Your task to perform on an android device: Open settings on Google Maps Image 0: 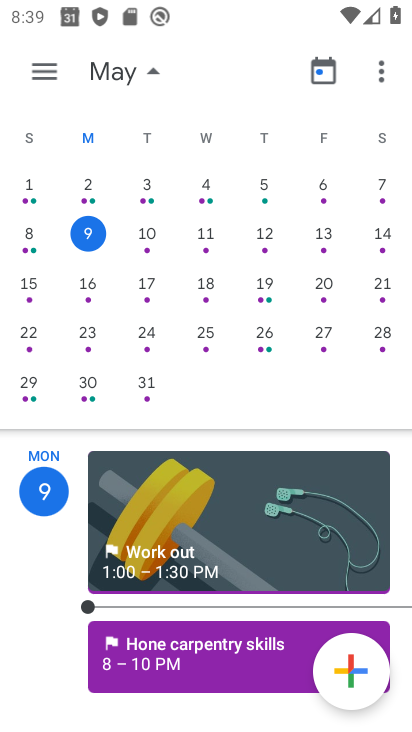
Step 0: press home button
Your task to perform on an android device: Open settings on Google Maps Image 1: 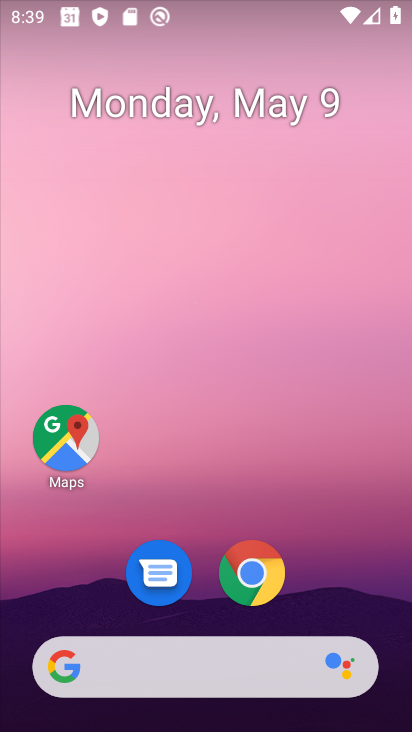
Step 1: drag from (283, 621) to (269, 75)
Your task to perform on an android device: Open settings on Google Maps Image 2: 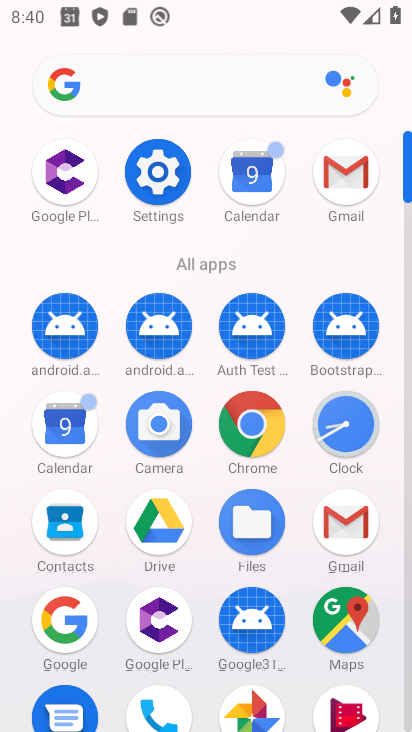
Step 2: click (349, 609)
Your task to perform on an android device: Open settings on Google Maps Image 3: 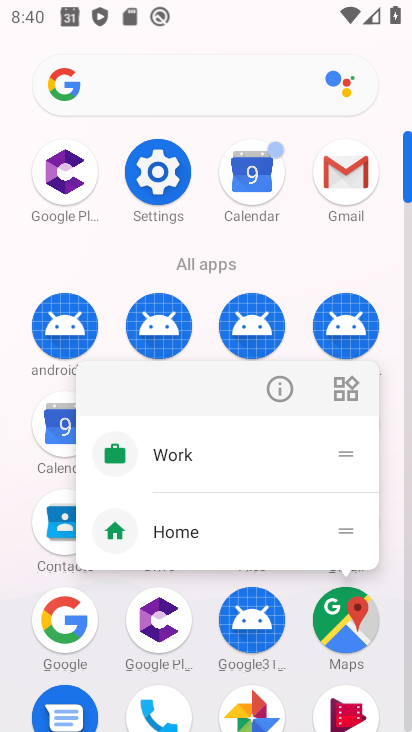
Step 3: click (349, 609)
Your task to perform on an android device: Open settings on Google Maps Image 4: 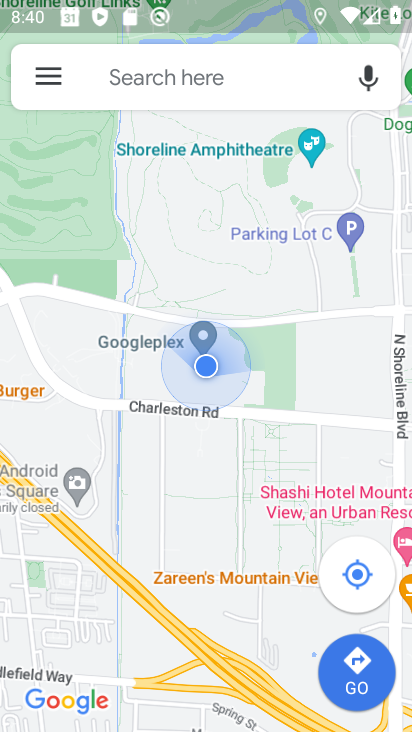
Step 4: click (62, 81)
Your task to perform on an android device: Open settings on Google Maps Image 5: 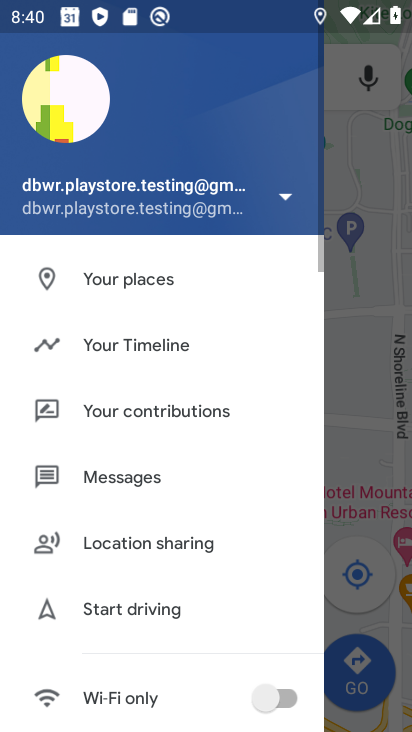
Step 5: drag from (235, 645) to (199, 296)
Your task to perform on an android device: Open settings on Google Maps Image 6: 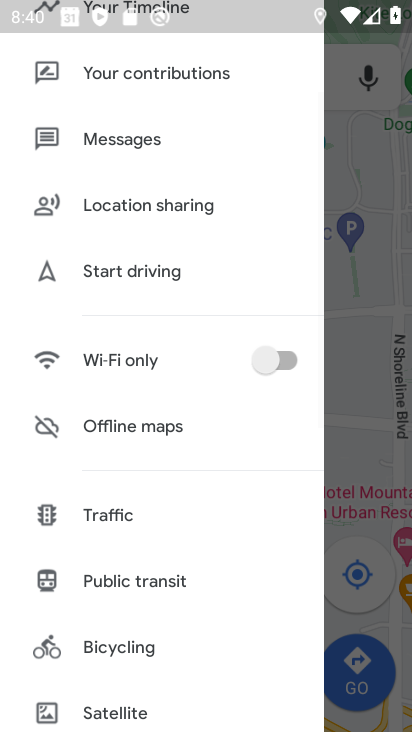
Step 6: drag from (132, 680) to (207, 358)
Your task to perform on an android device: Open settings on Google Maps Image 7: 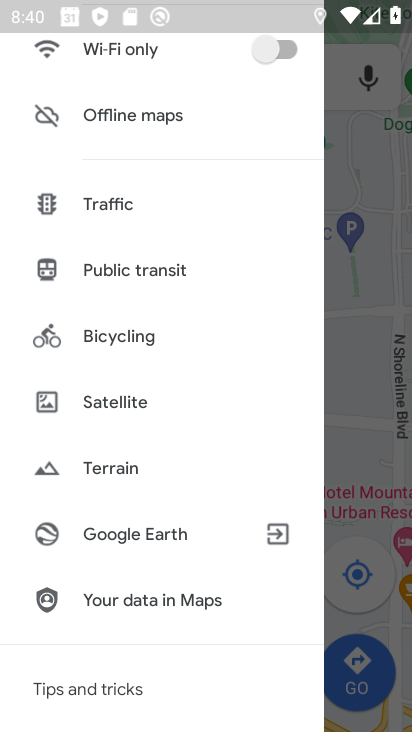
Step 7: drag from (127, 677) to (273, 335)
Your task to perform on an android device: Open settings on Google Maps Image 8: 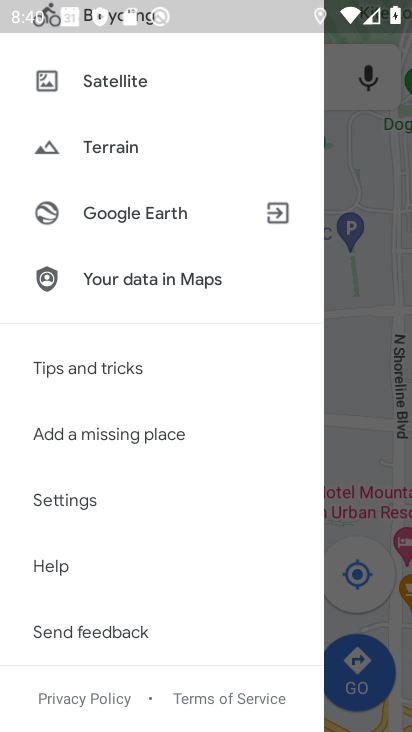
Step 8: click (96, 498)
Your task to perform on an android device: Open settings on Google Maps Image 9: 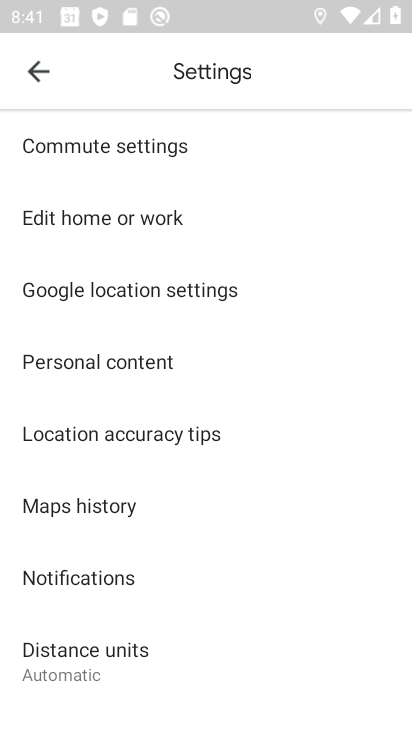
Step 9: task complete